Your task to perform on an android device: Search for the best rated drill on Lowes.com Image 0: 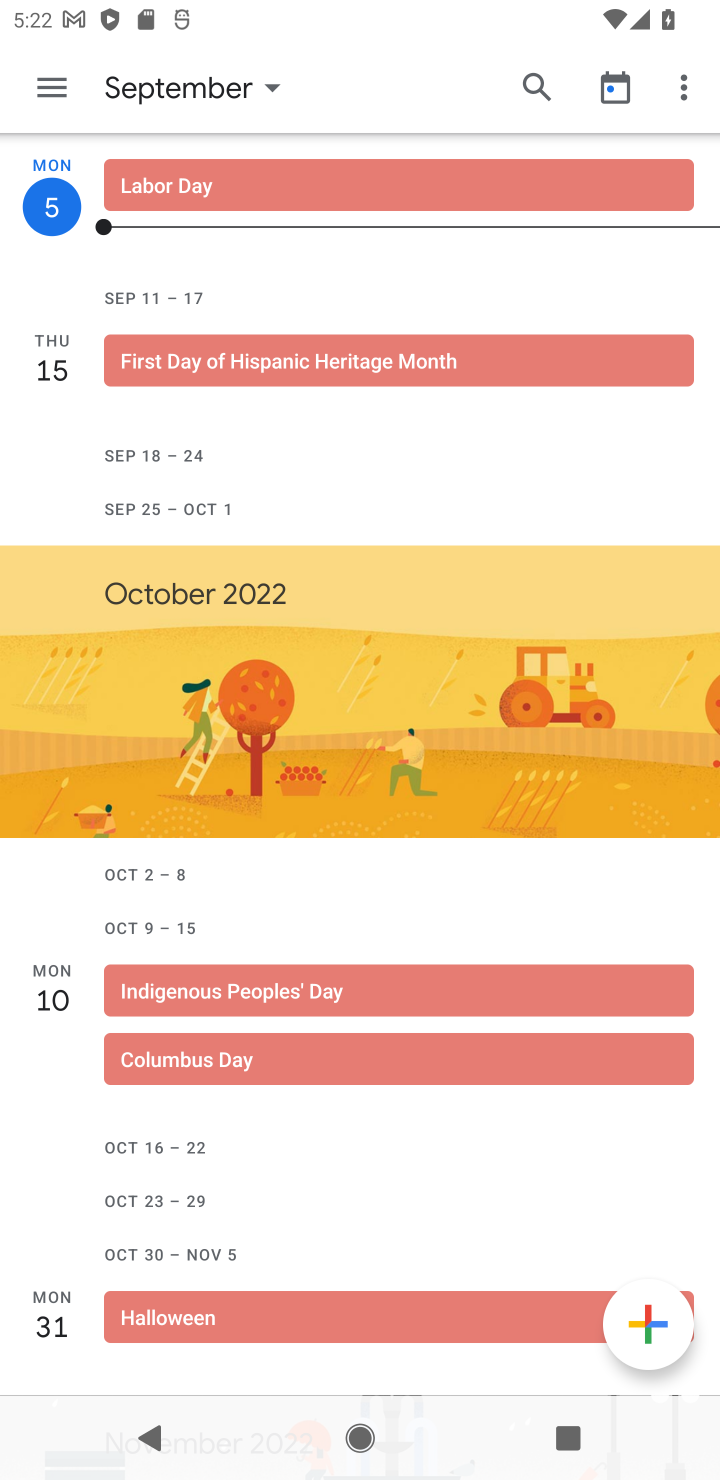
Step 0: press home button
Your task to perform on an android device: Search for the best rated drill on Lowes.com Image 1: 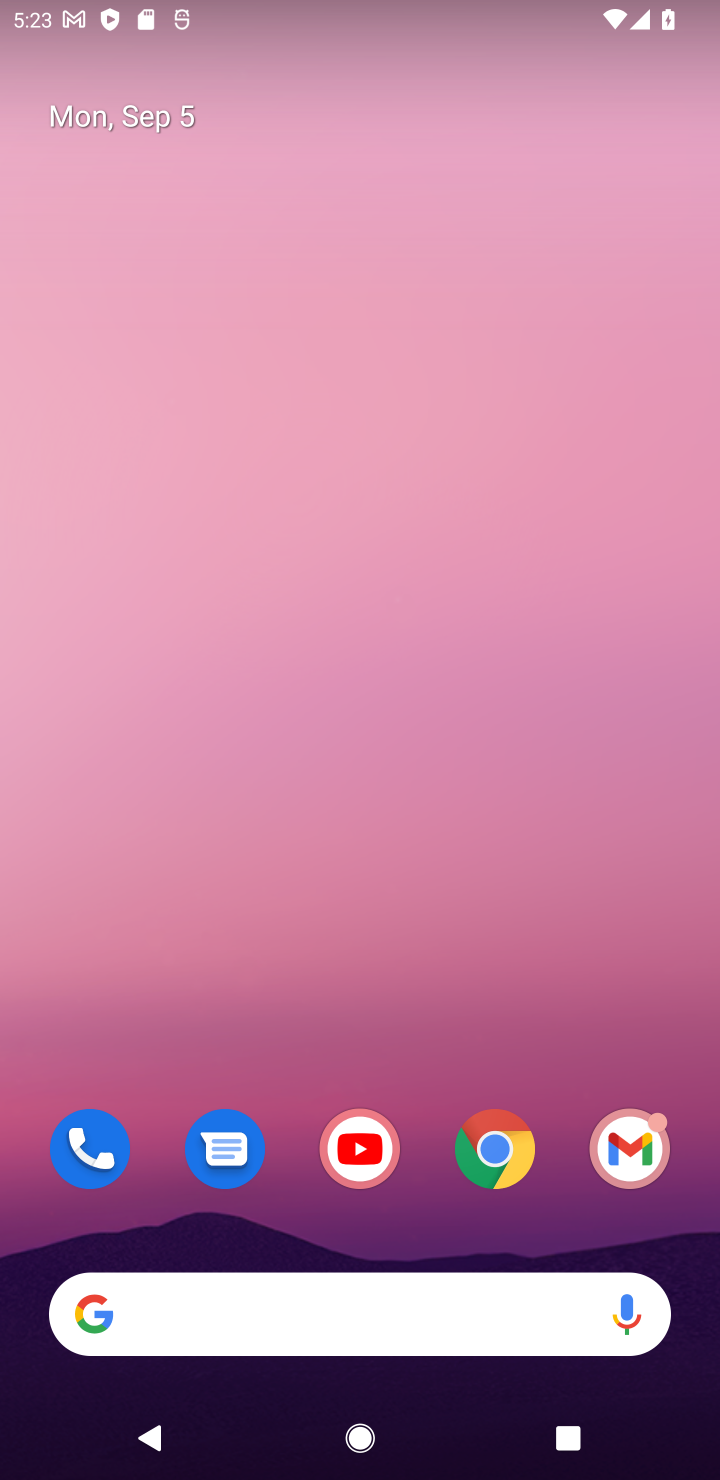
Step 1: click (495, 1158)
Your task to perform on an android device: Search for the best rated drill on Lowes.com Image 2: 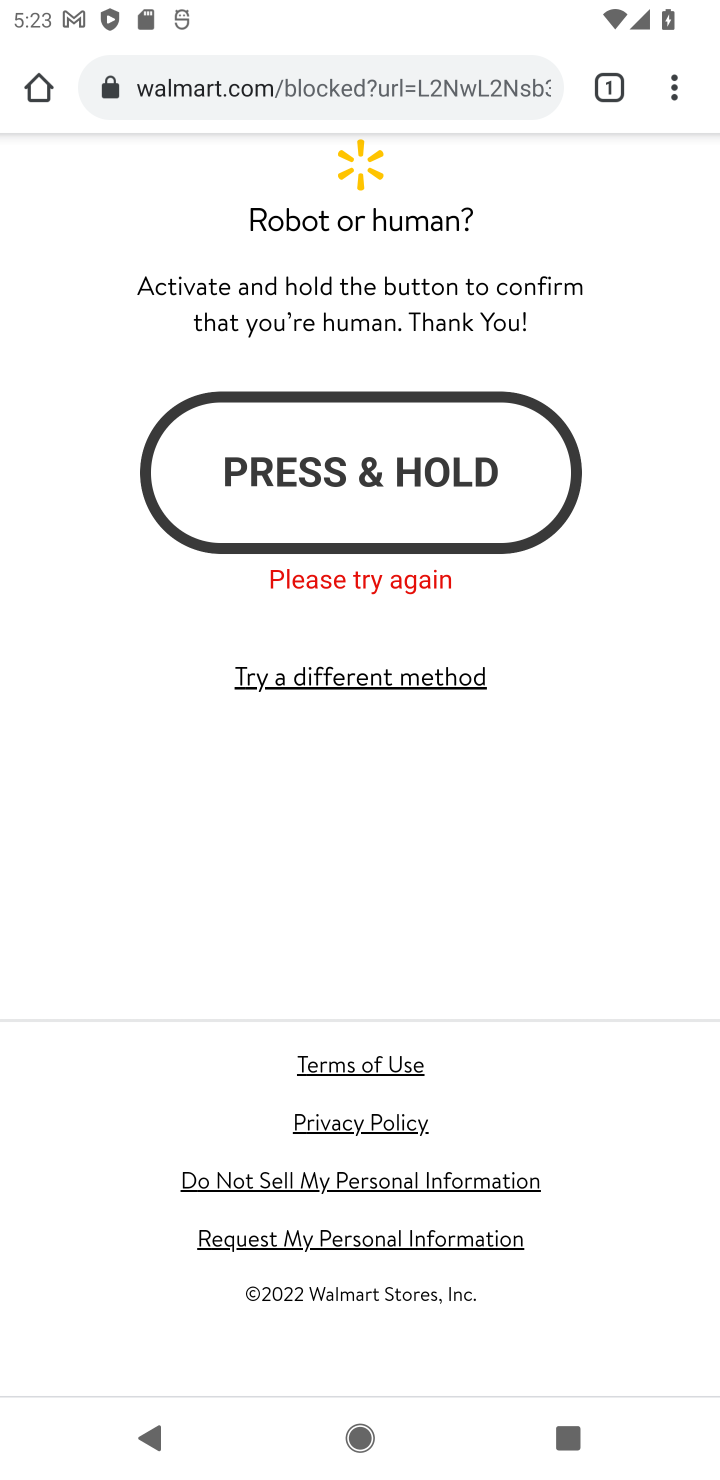
Step 2: click (288, 61)
Your task to perform on an android device: Search for the best rated drill on Lowes.com Image 3: 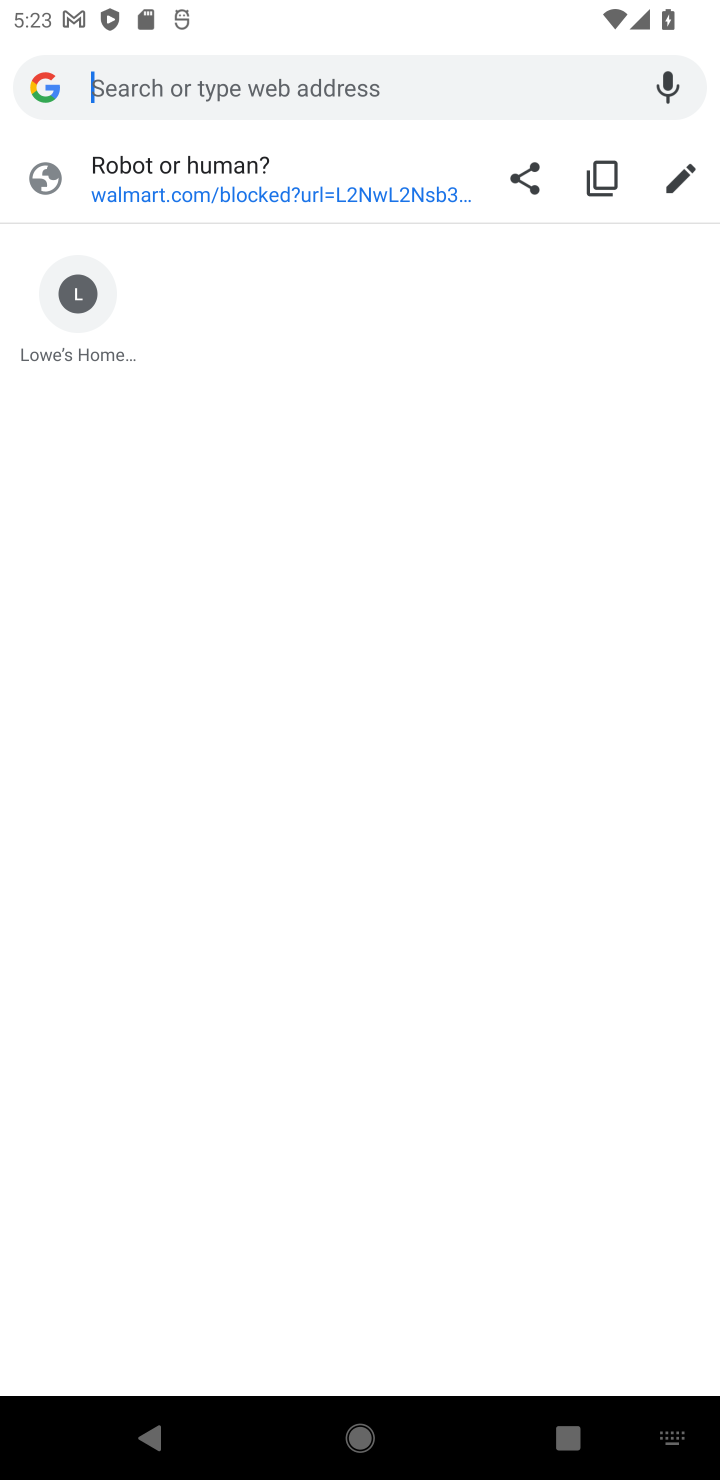
Step 3: type " Lowes.com"
Your task to perform on an android device: Search for the best rated drill on Lowes.com Image 4: 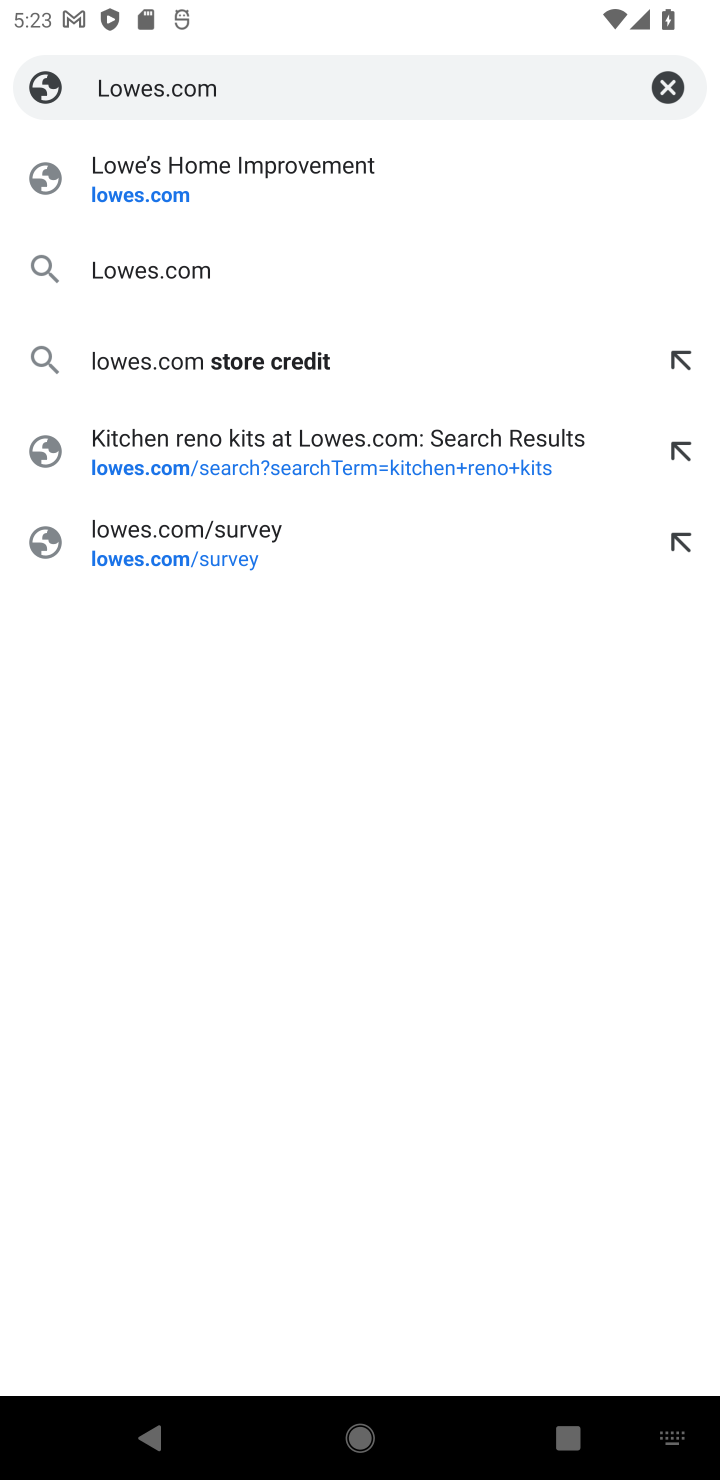
Step 4: click (170, 172)
Your task to perform on an android device: Search for the best rated drill on Lowes.com Image 5: 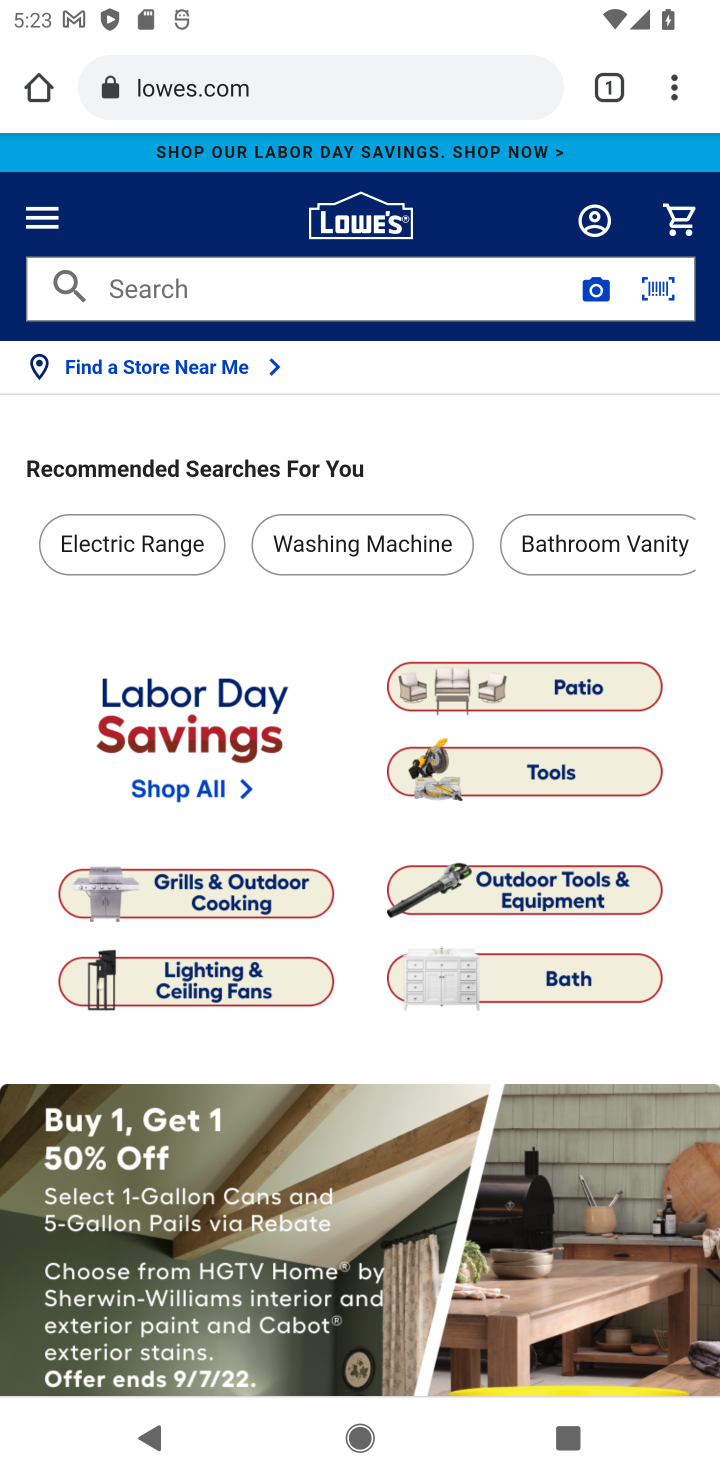
Step 5: click (208, 289)
Your task to perform on an android device: Search for the best rated drill on Lowes.com Image 6: 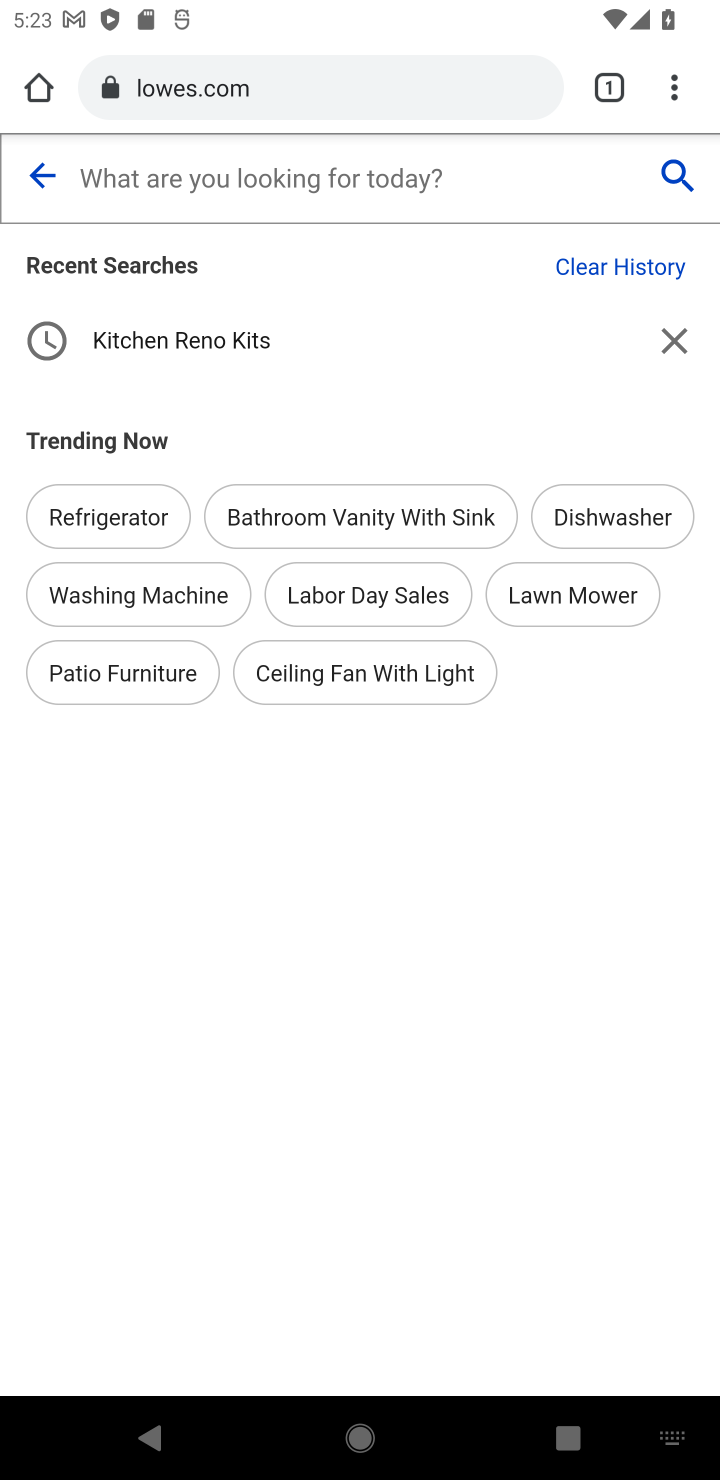
Step 6: type "best rated drill"
Your task to perform on an android device: Search for the best rated drill on Lowes.com Image 7: 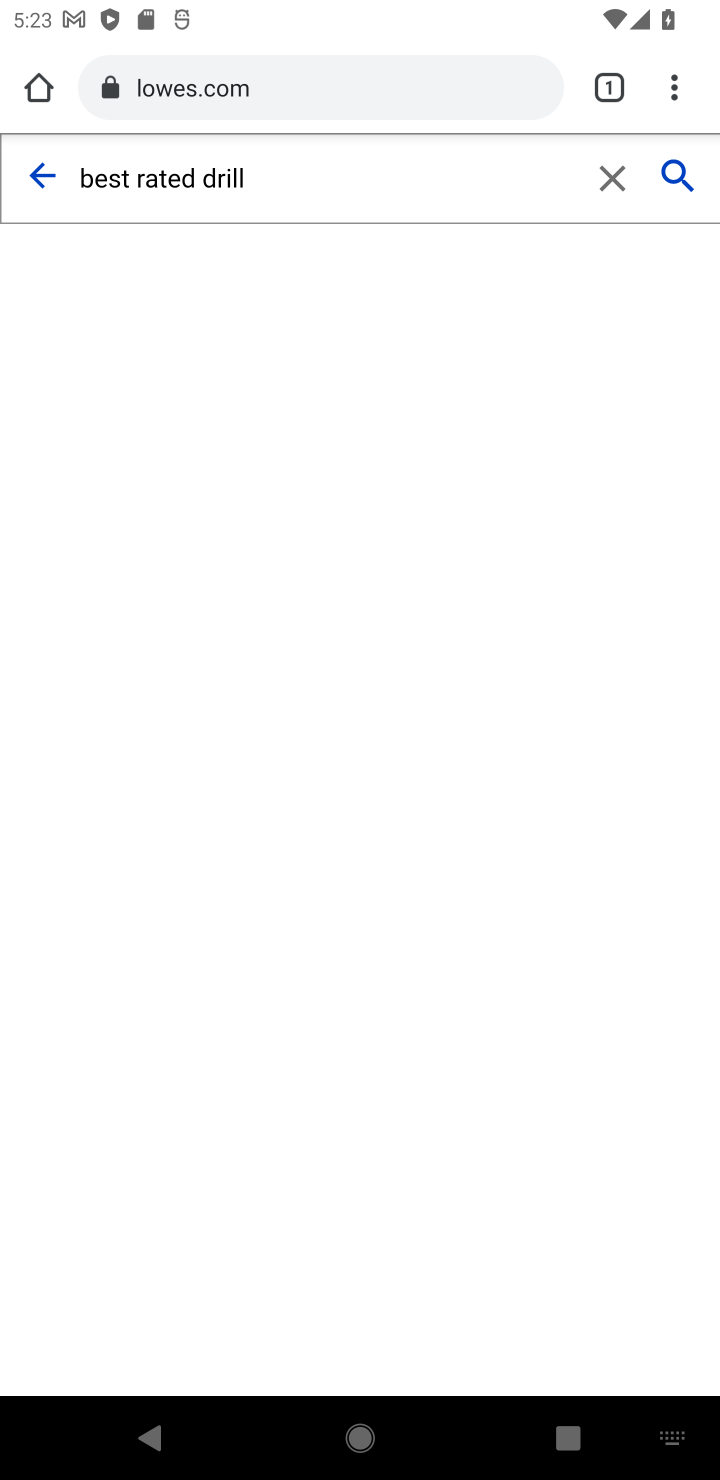
Step 7: click (667, 174)
Your task to perform on an android device: Search for the best rated drill on Lowes.com Image 8: 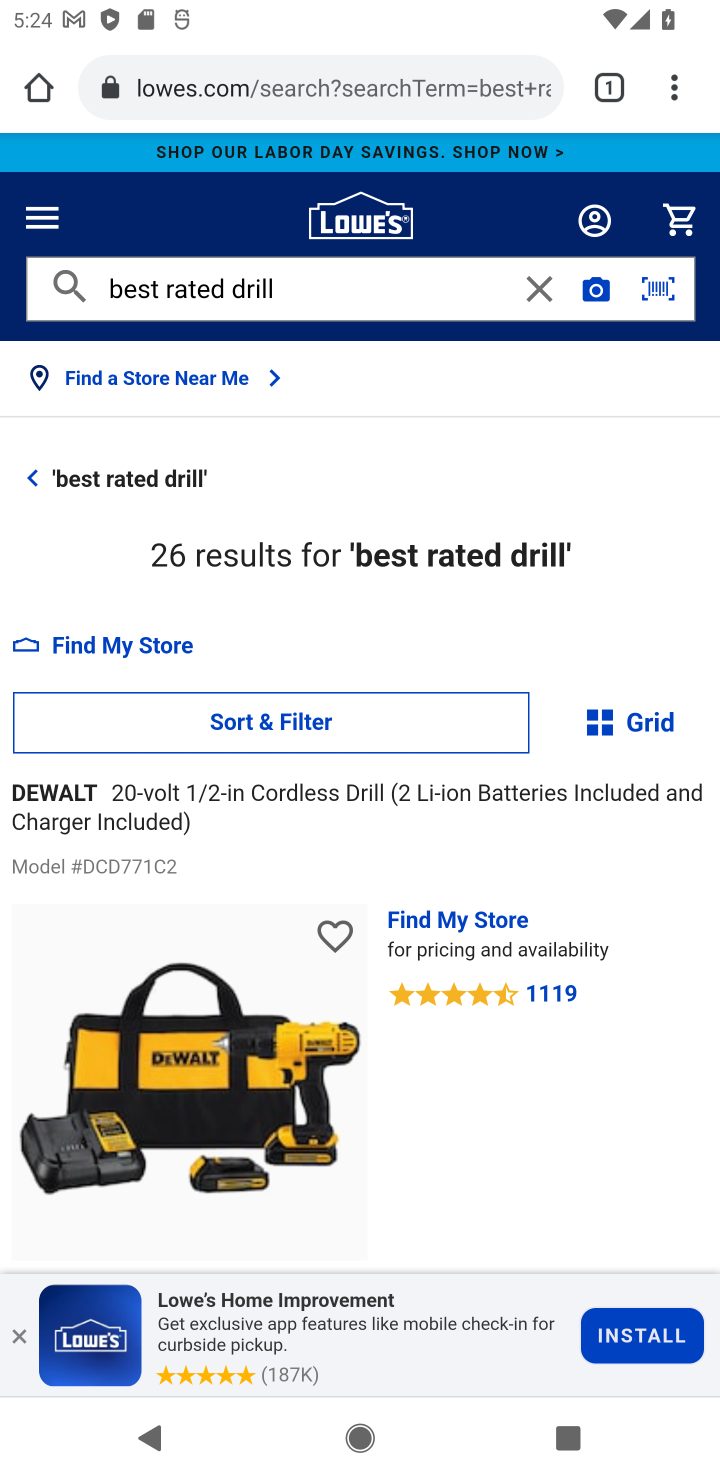
Step 8: click (236, 717)
Your task to perform on an android device: Search for the best rated drill on Lowes.com Image 9: 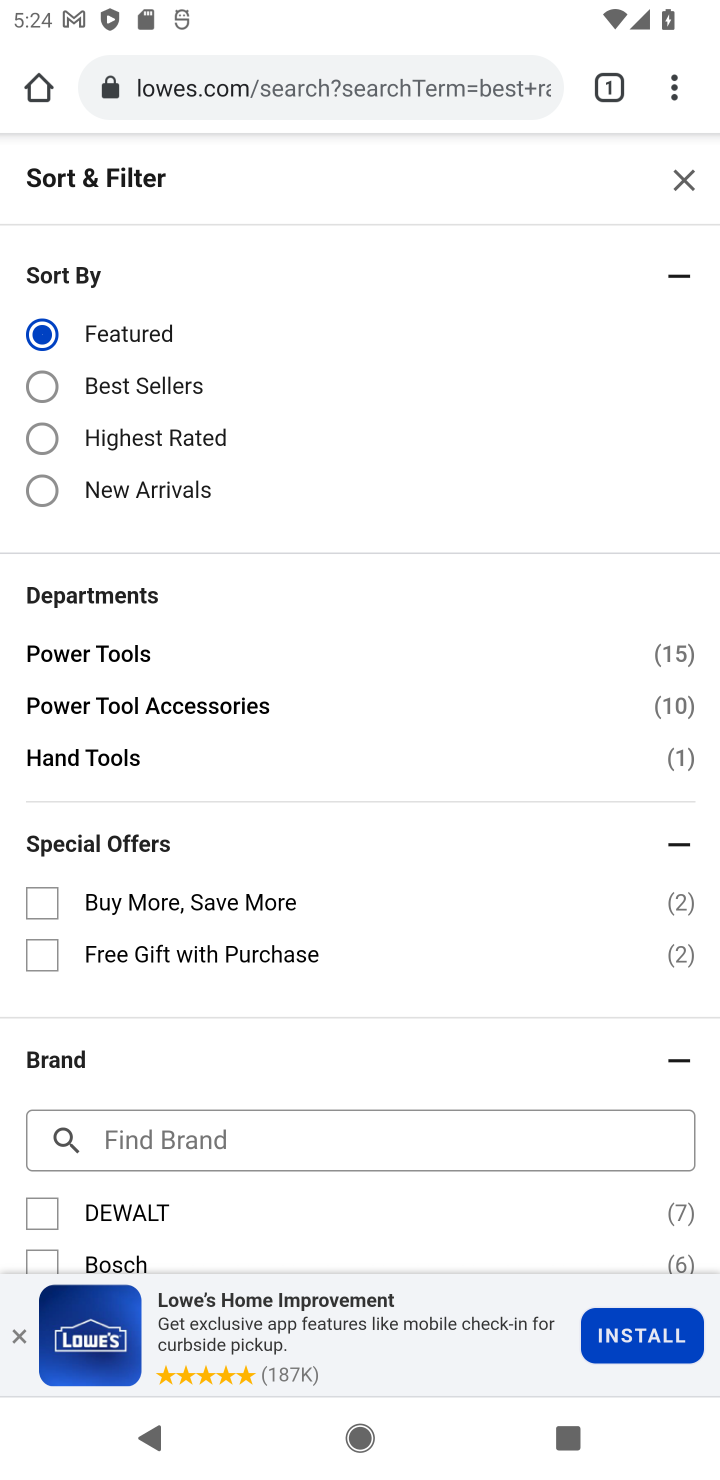
Step 9: click (23, 431)
Your task to perform on an android device: Search for the best rated drill on Lowes.com Image 10: 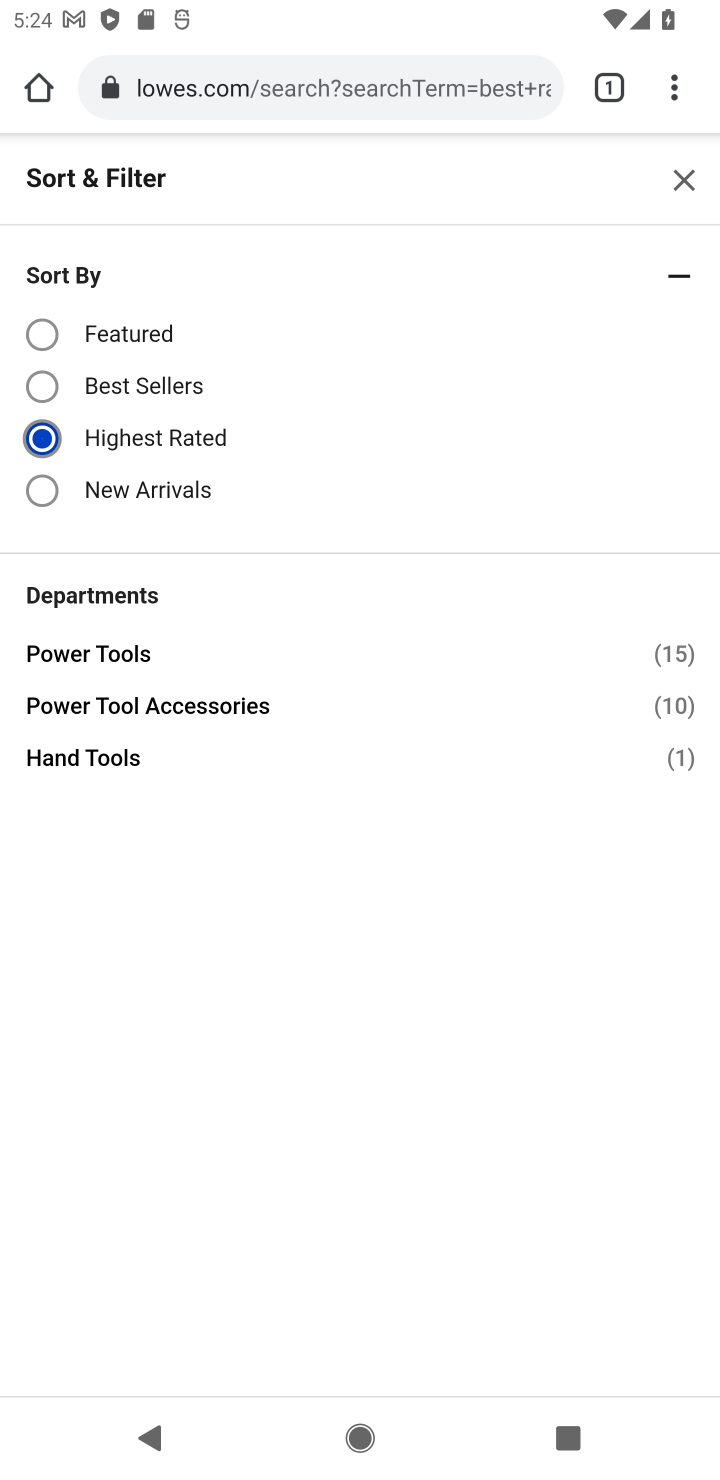
Step 10: drag from (376, 1221) to (394, 805)
Your task to perform on an android device: Search for the best rated drill on Lowes.com Image 11: 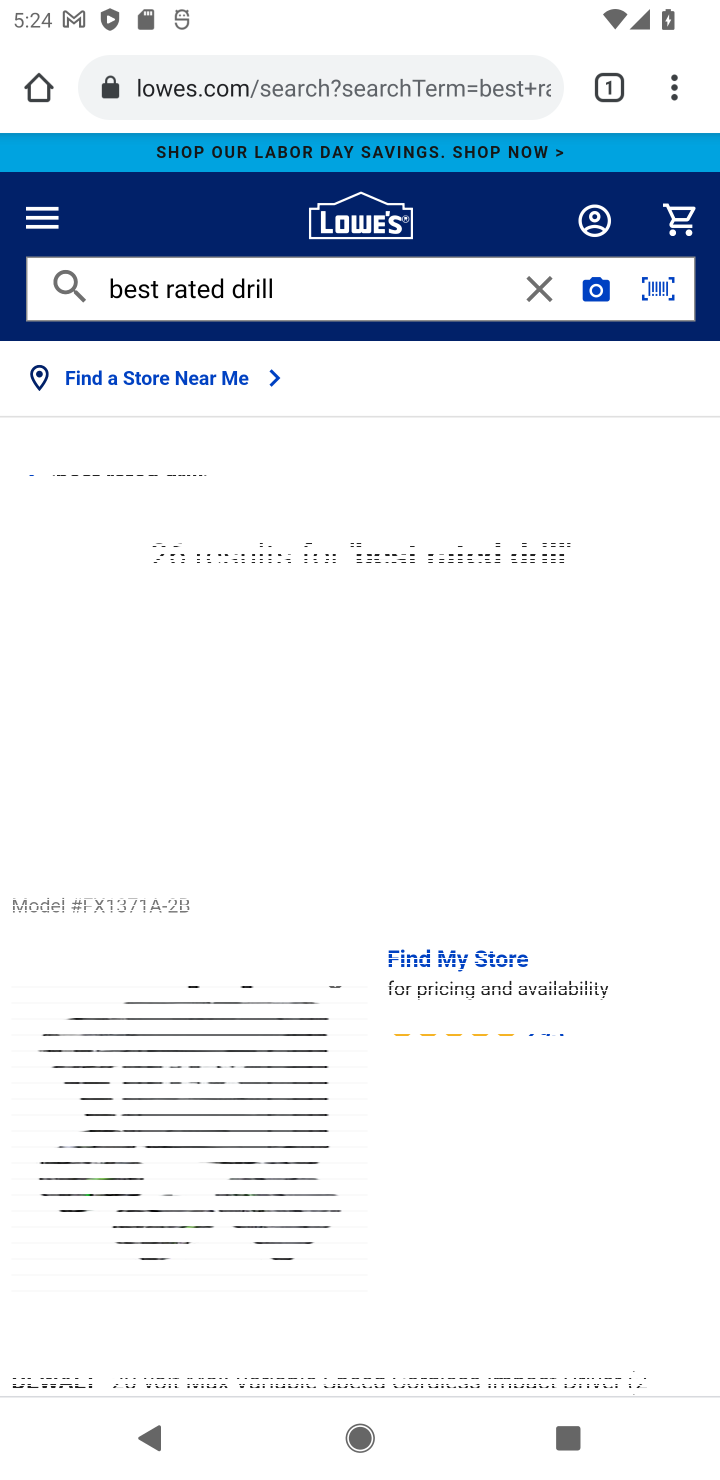
Step 11: drag from (367, 1195) to (372, 634)
Your task to perform on an android device: Search for the best rated drill on Lowes.com Image 12: 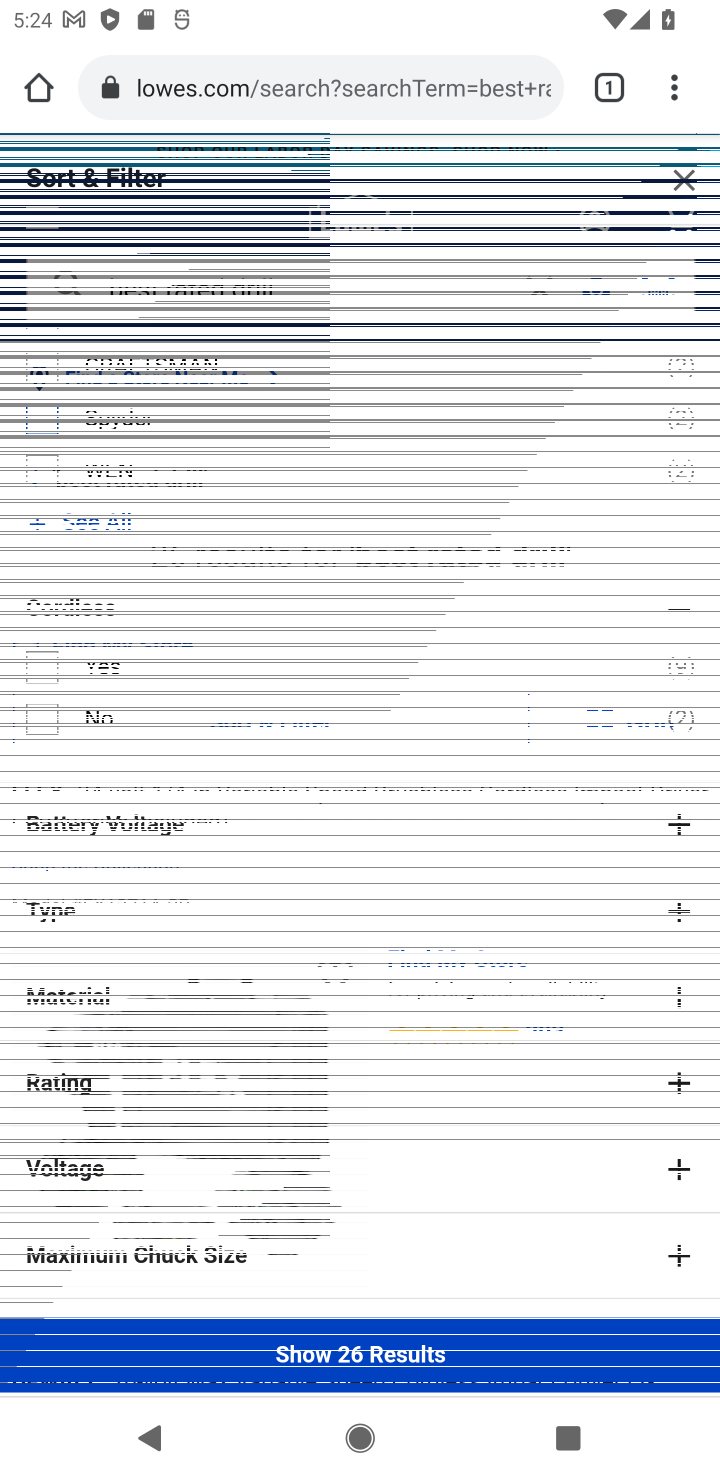
Step 12: click (345, 1357)
Your task to perform on an android device: Search for the best rated drill on Lowes.com Image 13: 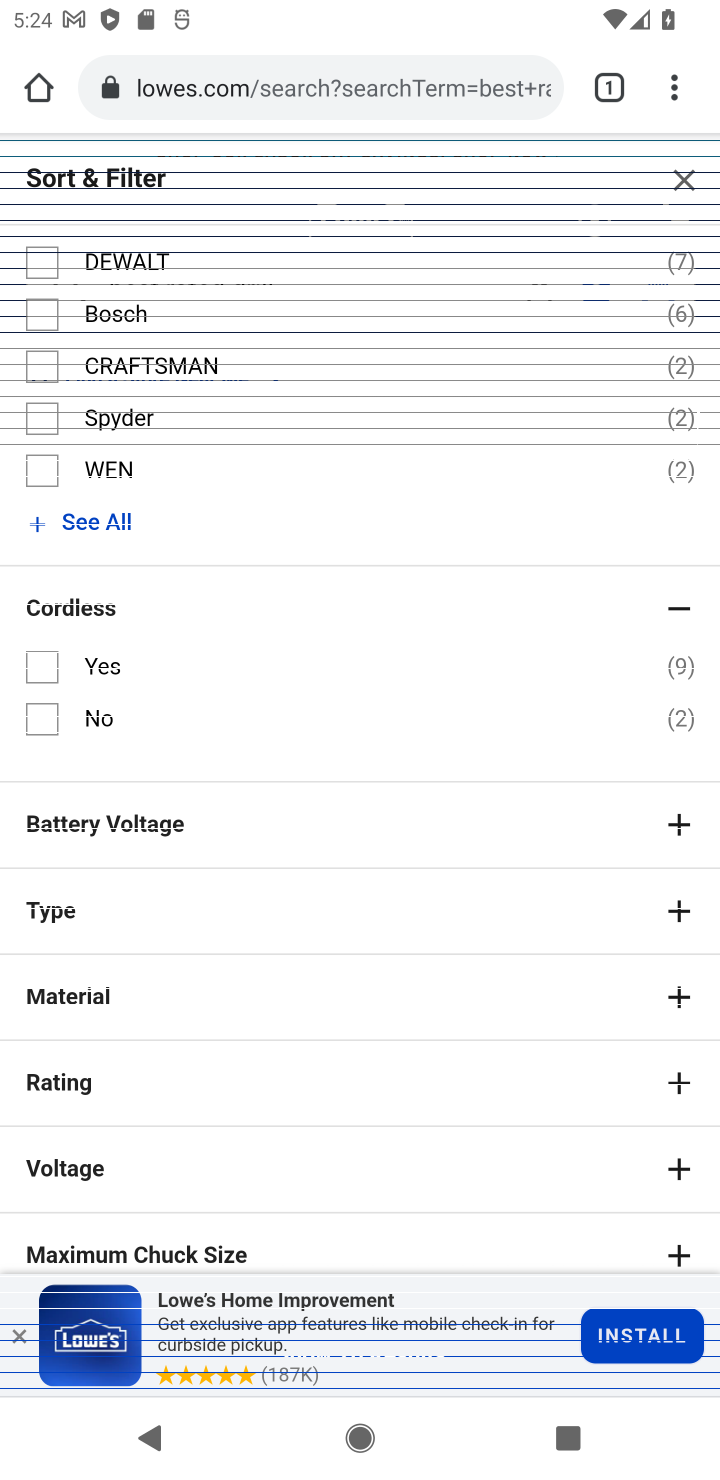
Step 13: click (15, 1339)
Your task to perform on an android device: Search for the best rated drill on Lowes.com Image 14: 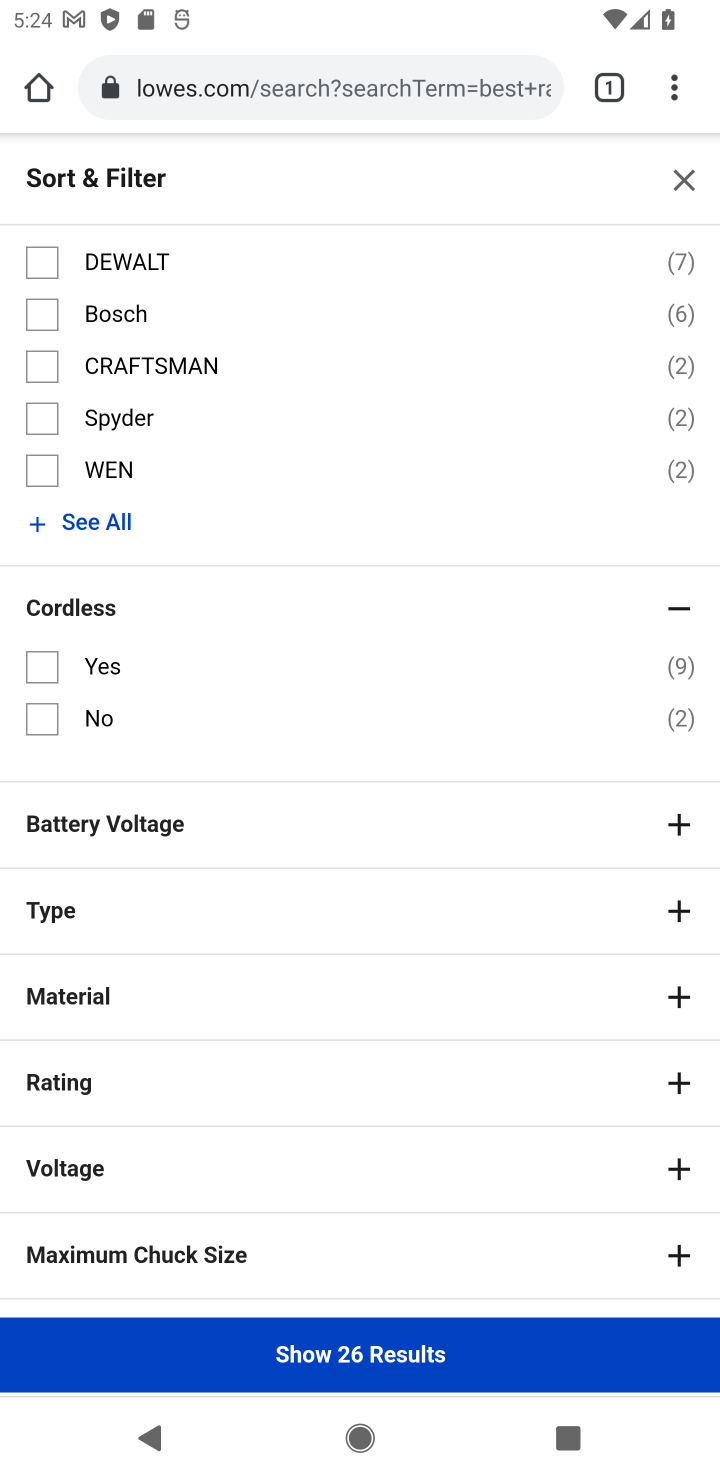
Step 14: click (337, 1356)
Your task to perform on an android device: Search for the best rated drill on Lowes.com Image 15: 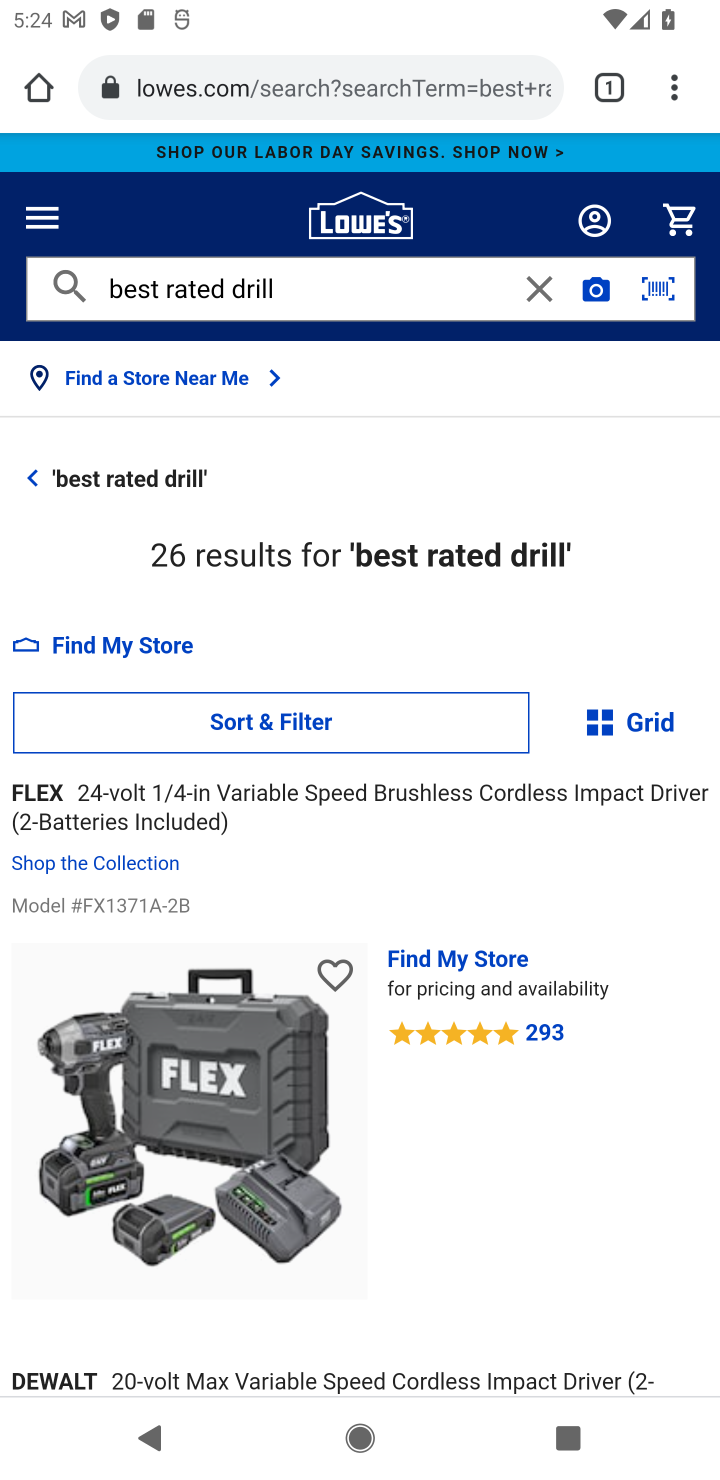
Step 15: task complete